Your task to perform on an android device: Go to settings Image 0: 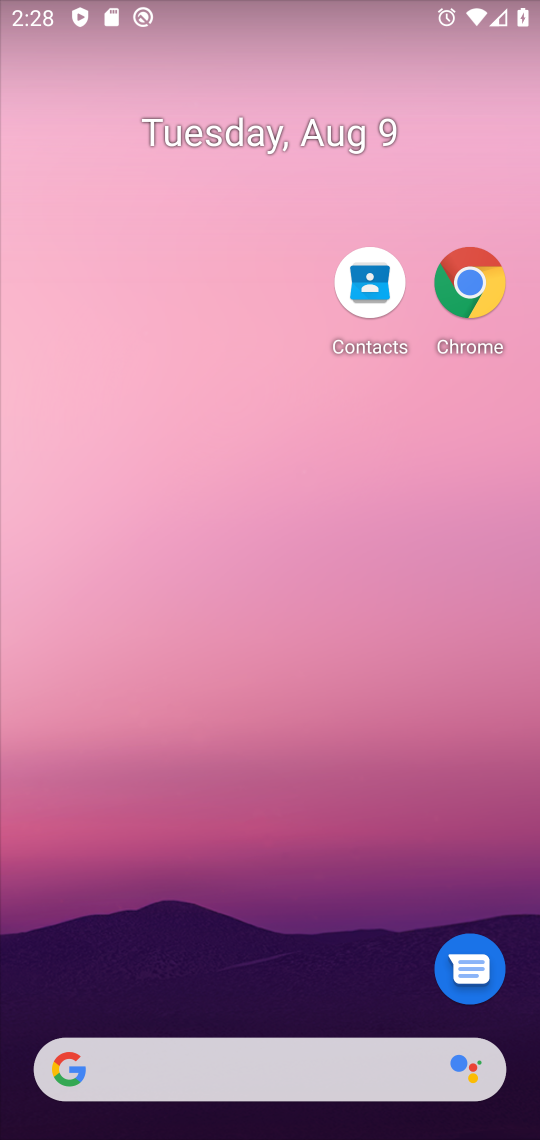
Step 0: drag from (304, 956) to (330, 287)
Your task to perform on an android device: Go to settings Image 1: 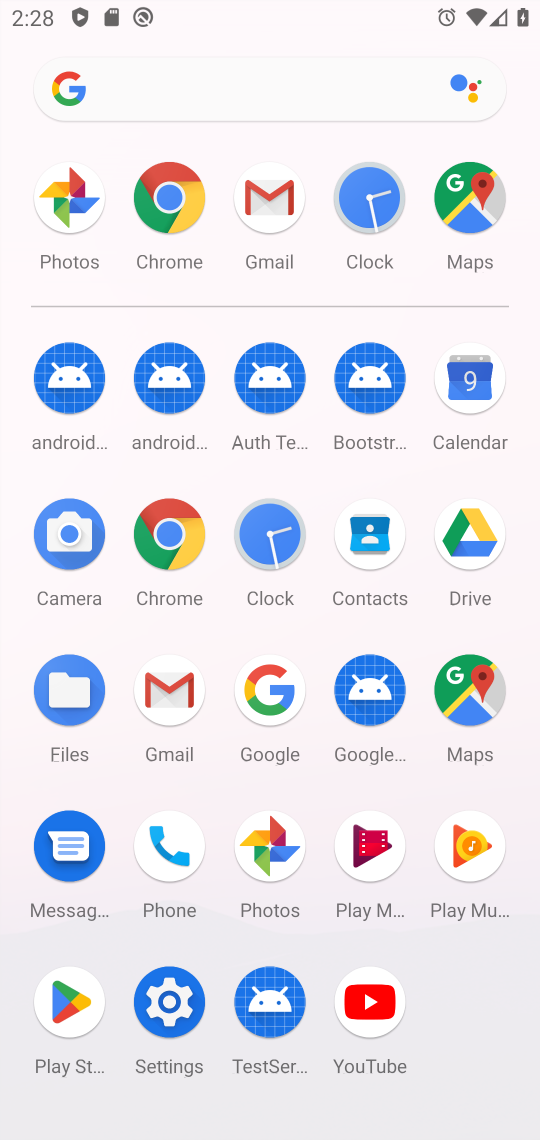
Step 1: click (174, 985)
Your task to perform on an android device: Go to settings Image 2: 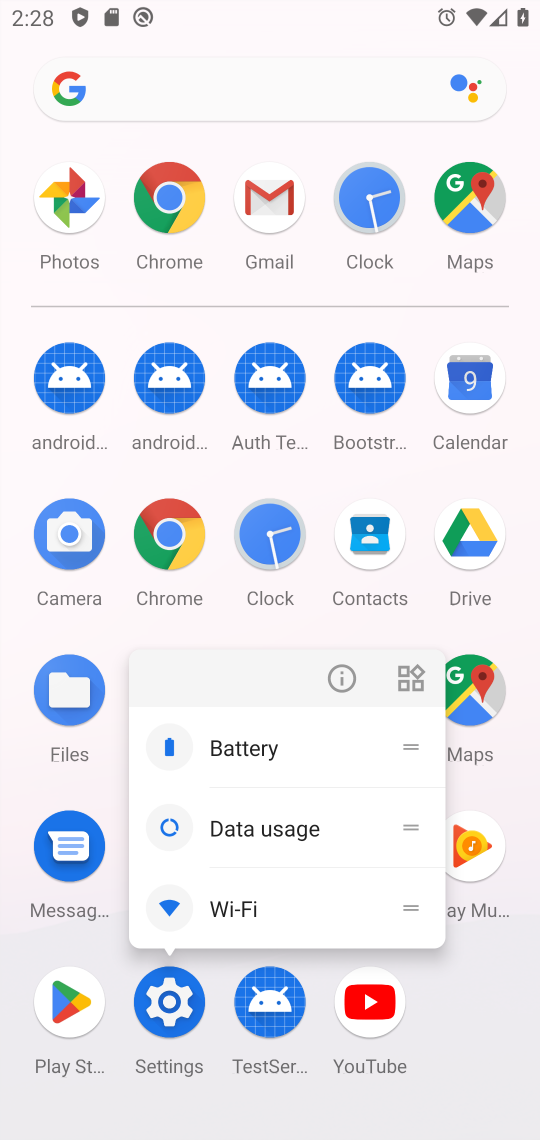
Step 2: click (351, 681)
Your task to perform on an android device: Go to settings Image 3: 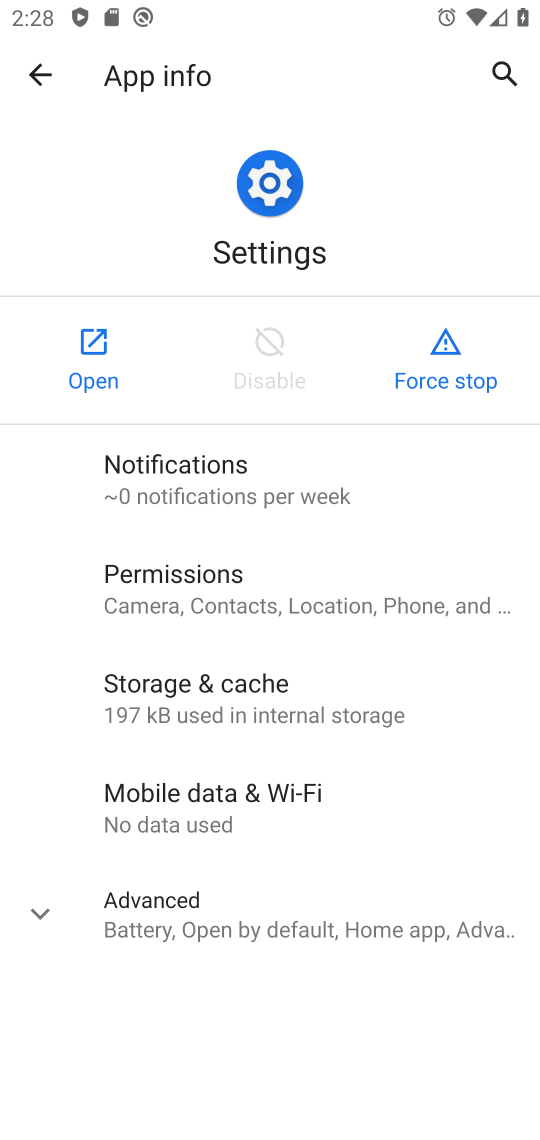
Step 3: click (101, 362)
Your task to perform on an android device: Go to settings Image 4: 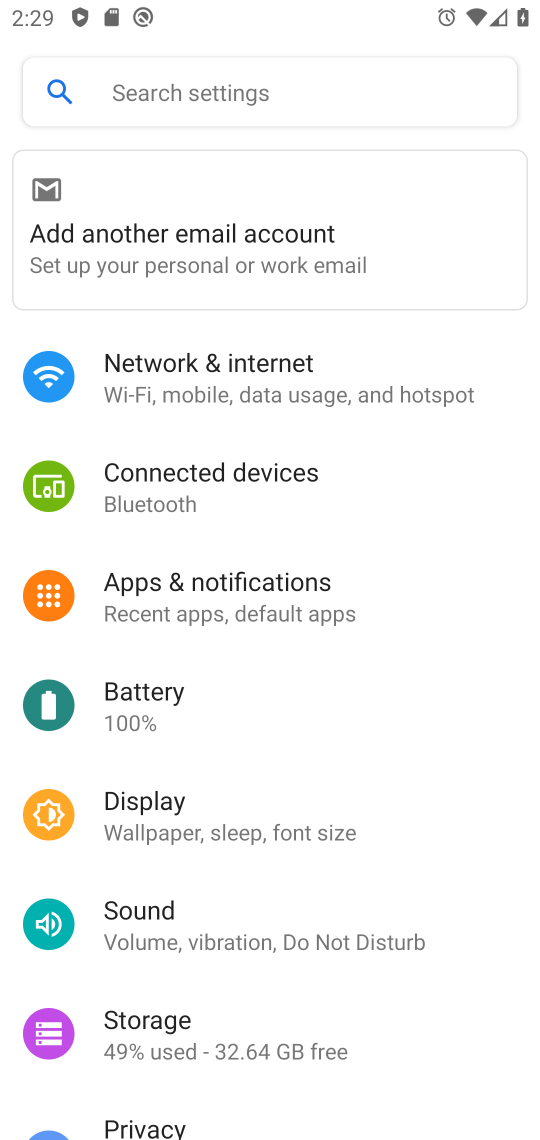
Step 4: task complete